Your task to perform on an android device: check data usage Image 0: 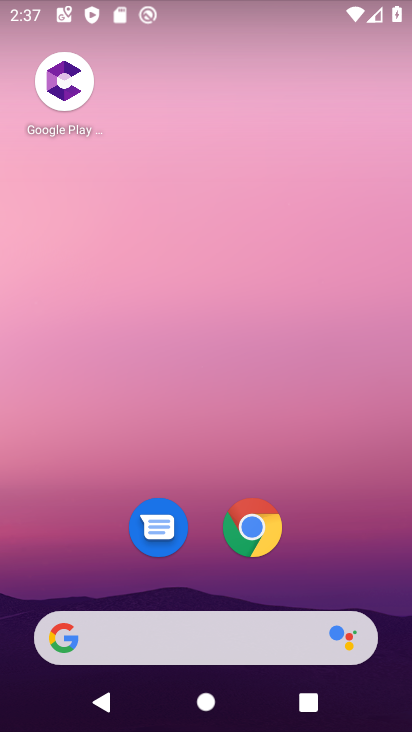
Step 0: drag from (357, 618) to (181, 103)
Your task to perform on an android device: check data usage Image 1: 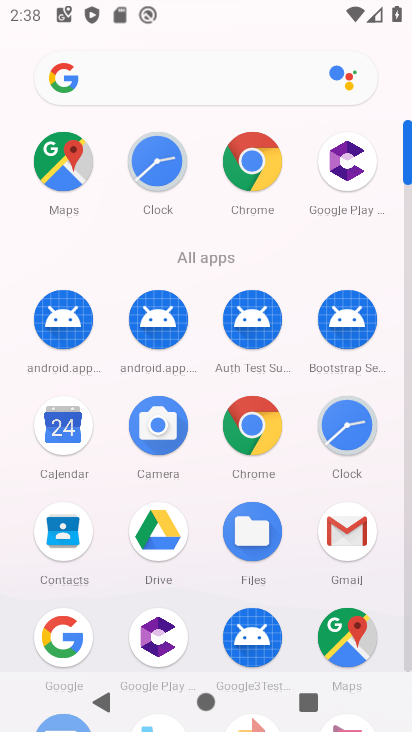
Step 1: drag from (264, 490) to (265, 227)
Your task to perform on an android device: check data usage Image 2: 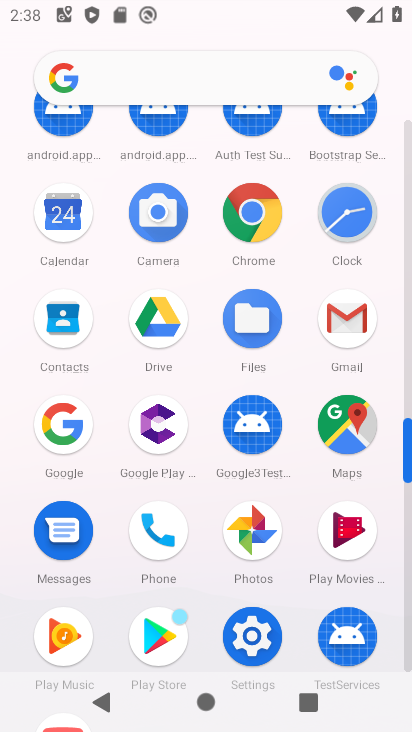
Step 2: drag from (303, 483) to (283, 284)
Your task to perform on an android device: check data usage Image 3: 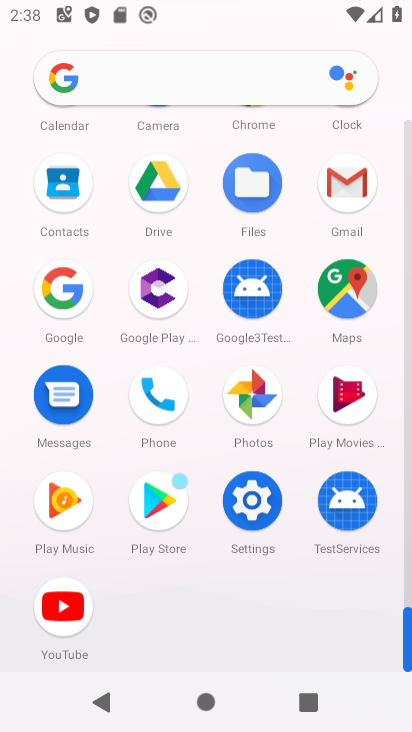
Step 3: drag from (308, 444) to (267, 129)
Your task to perform on an android device: check data usage Image 4: 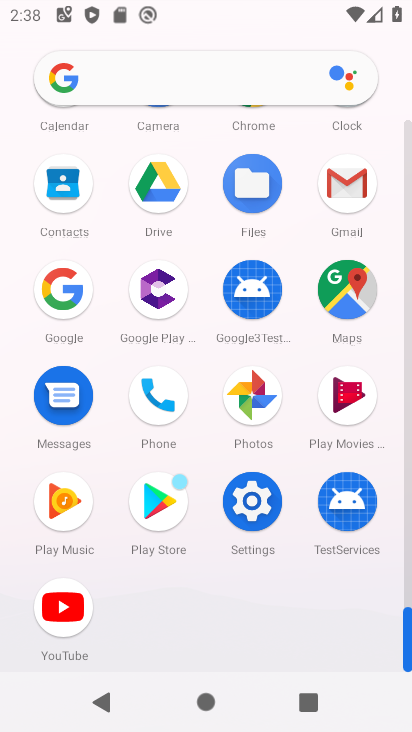
Step 4: click (252, 509)
Your task to perform on an android device: check data usage Image 5: 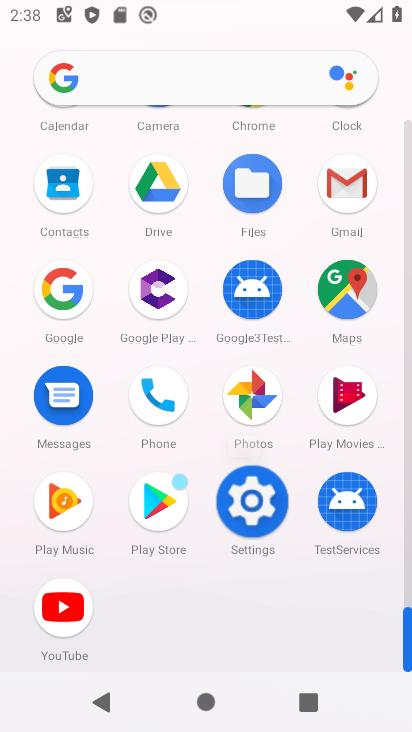
Step 5: click (252, 508)
Your task to perform on an android device: check data usage Image 6: 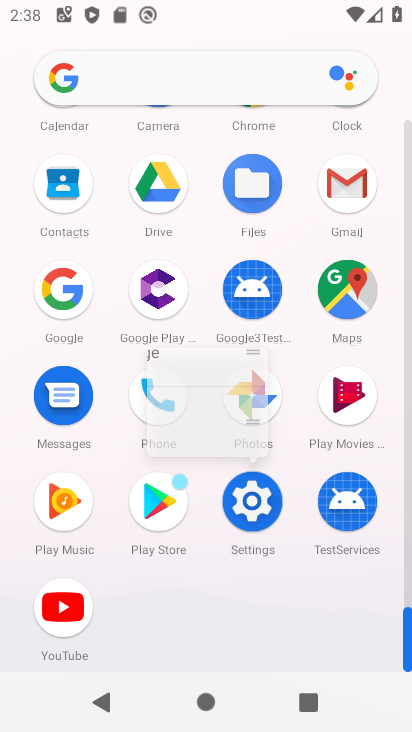
Step 6: click (254, 506)
Your task to perform on an android device: check data usage Image 7: 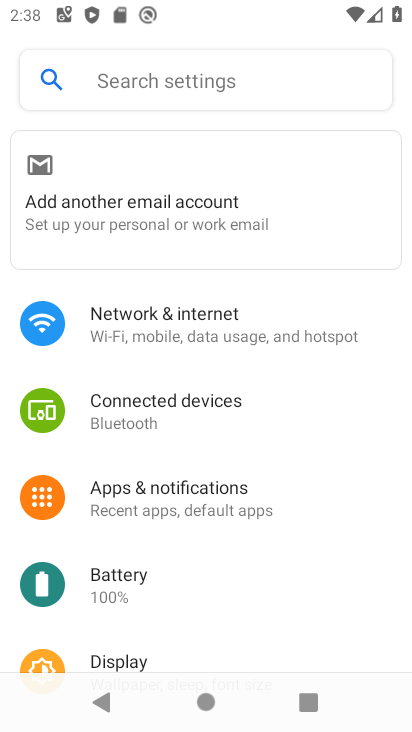
Step 7: drag from (139, 580) to (49, 224)
Your task to perform on an android device: check data usage Image 8: 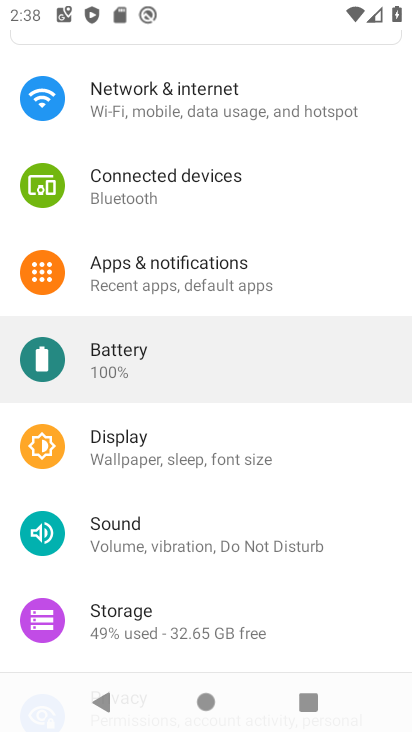
Step 8: drag from (129, 450) to (97, 150)
Your task to perform on an android device: check data usage Image 9: 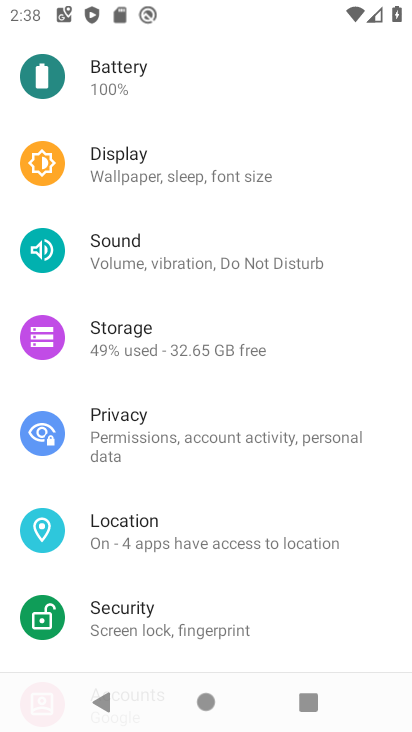
Step 9: drag from (158, 506) to (156, 187)
Your task to perform on an android device: check data usage Image 10: 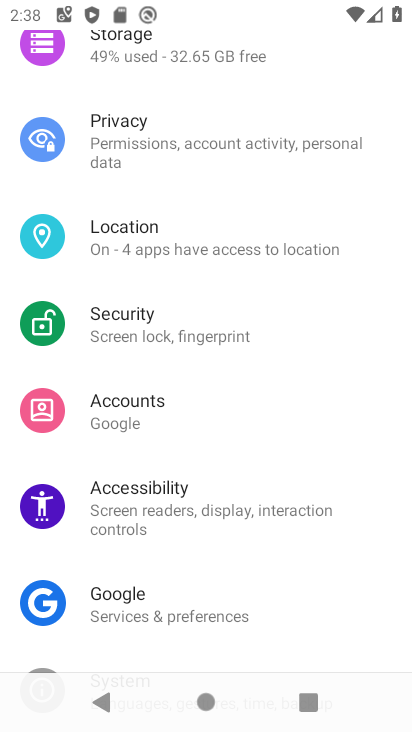
Step 10: drag from (164, 538) to (161, 180)
Your task to perform on an android device: check data usage Image 11: 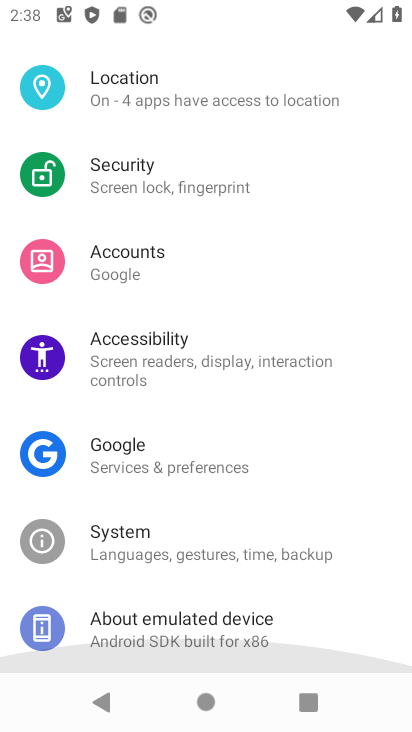
Step 11: drag from (197, 401) to (155, 108)
Your task to perform on an android device: check data usage Image 12: 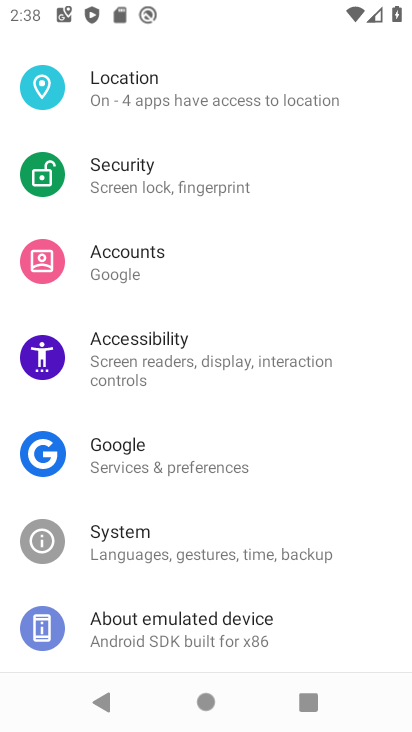
Step 12: drag from (126, 283) to (166, 625)
Your task to perform on an android device: check data usage Image 13: 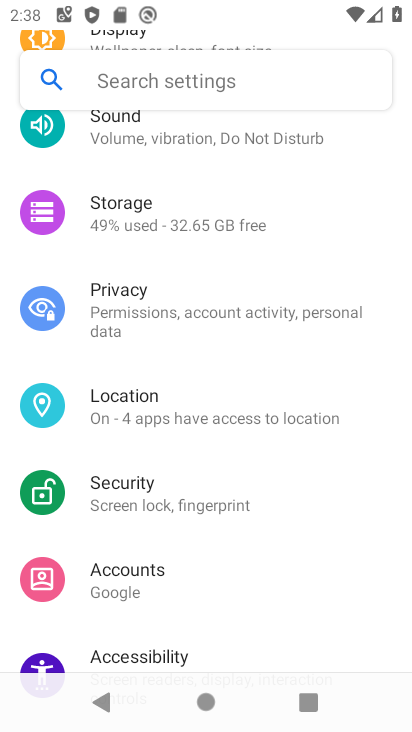
Step 13: drag from (127, 366) to (184, 707)
Your task to perform on an android device: check data usage Image 14: 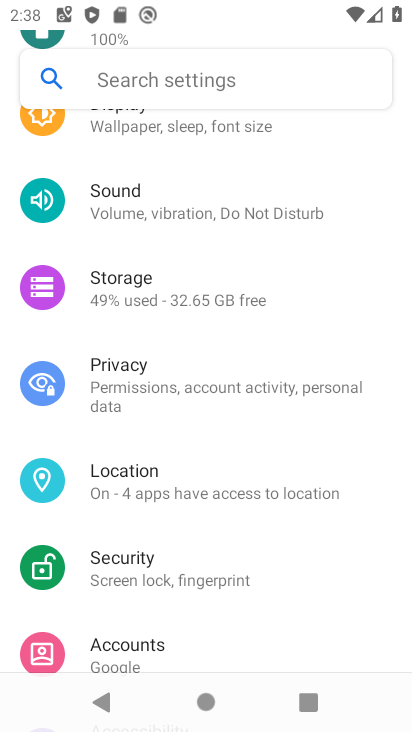
Step 14: click (220, 540)
Your task to perform on an android device: check data usage Image 15: 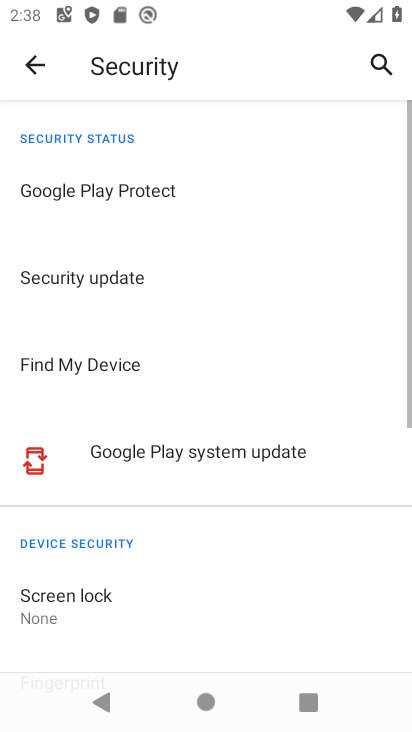
Step 15: drag from (107, 204) to (164, 704)
Your task to perform on an android device: check data usage Image 16: 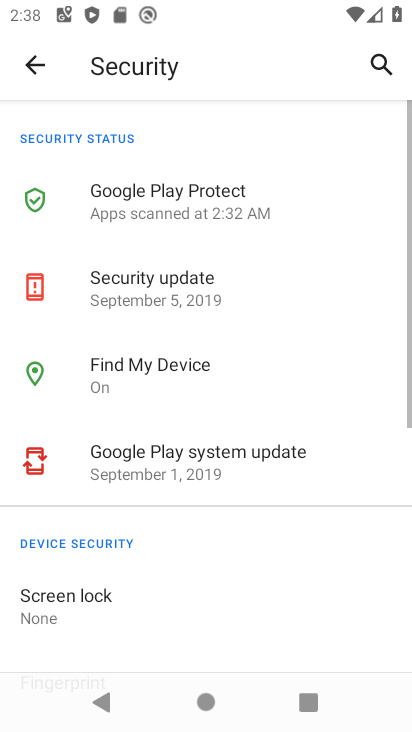
Step 16: click (35, 60)
Your task to perform on an android device: check data usage Image 17: 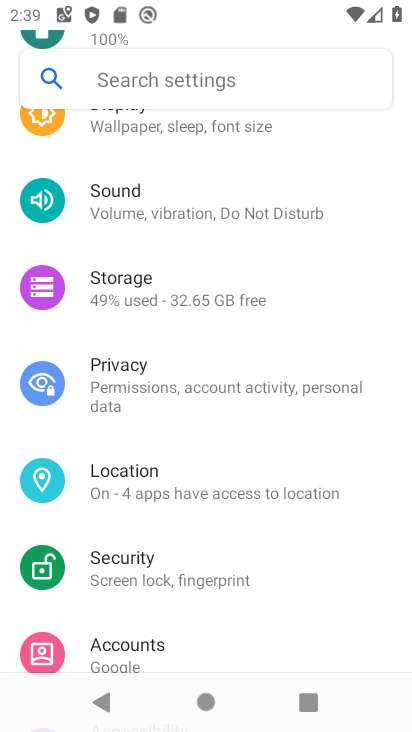
Step 17: drag from (145, 288) to (160, 539)
Your task to perform on an android device: check data usage Image 18: 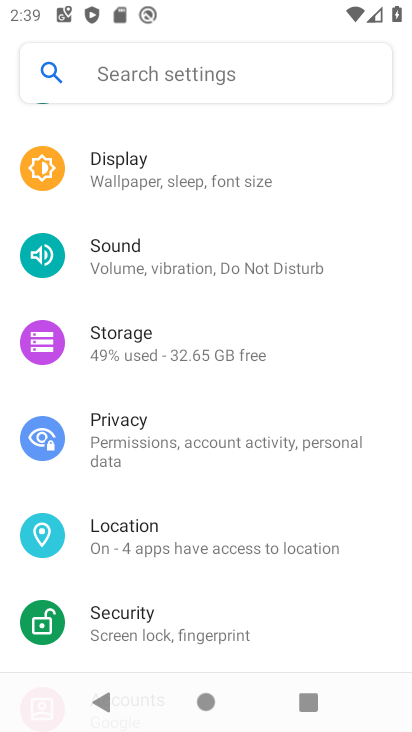
Step 18: drag from (131, 408) to (132, 535)
Your task to perform on an android device: check data usage Image 19: 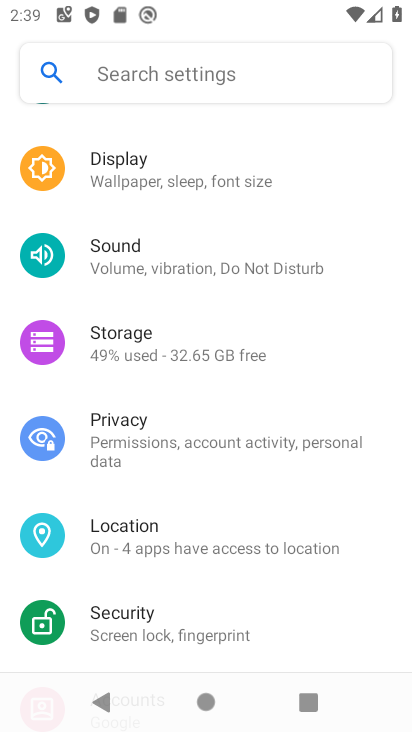
Step 19: drag from (177, 218) to (186, 493)
Your task to perform on an android device: check data usage Image 20: 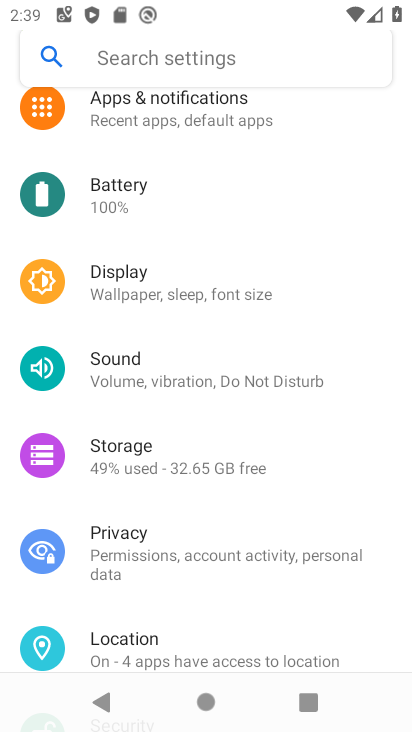
Step 20: drag from (152, 117) to (179, 691)
Your task to perform on an android device: check data usage Image 21: 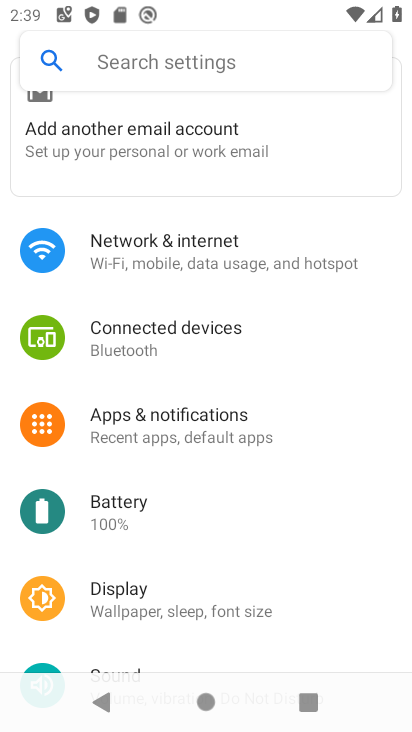
Step 21: click (186, 255)
Your task to perform on an android device: check data usage Image 22: 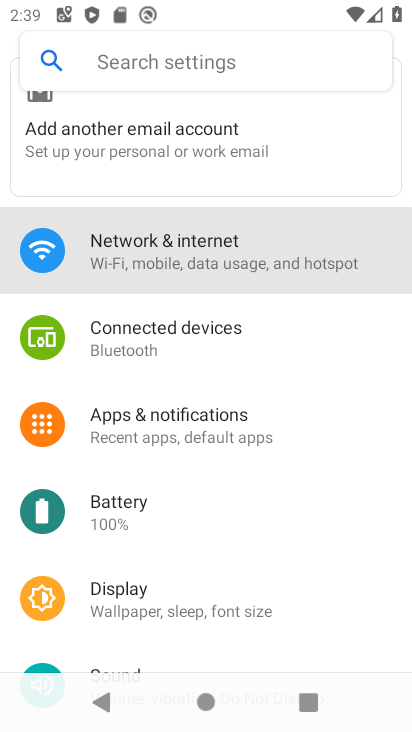
Step 22: click (186, 255)
Your task to perform on an android device: check data usage Image 23: 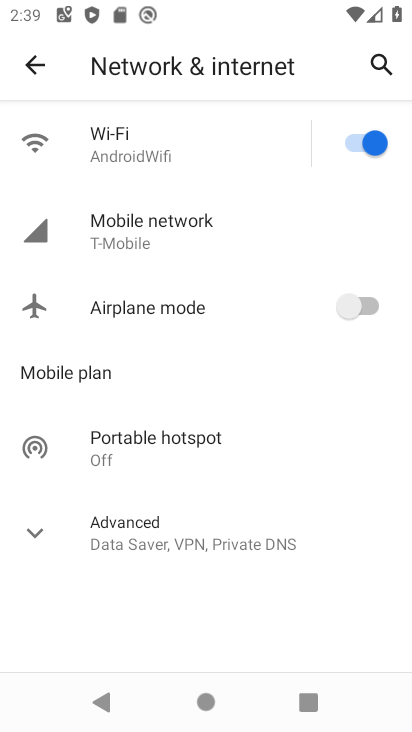
Step 23: task complete